Your task to perform on an android device: Go to privacy settings Image 0: 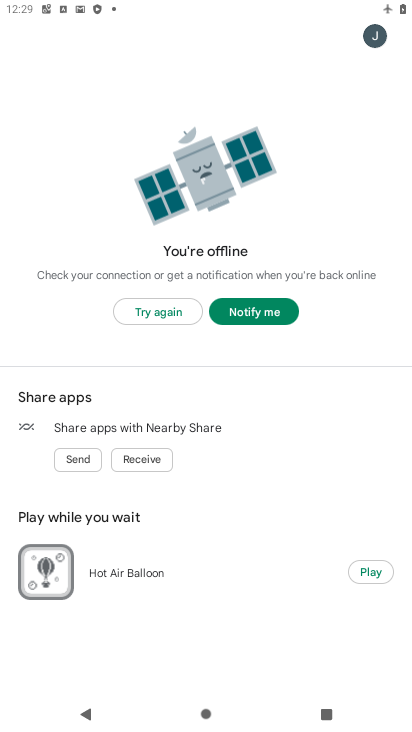
Step 0: press home button
Your task to perform on an android device: Go to privacy settings Image 1: 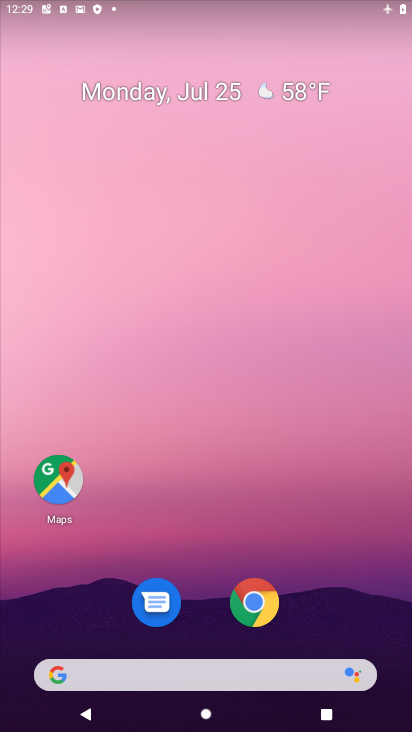
Step 1: drag from (198, 622) to (212, 104)
Your task to perform on an android device: Go to privacy settings Image 2: 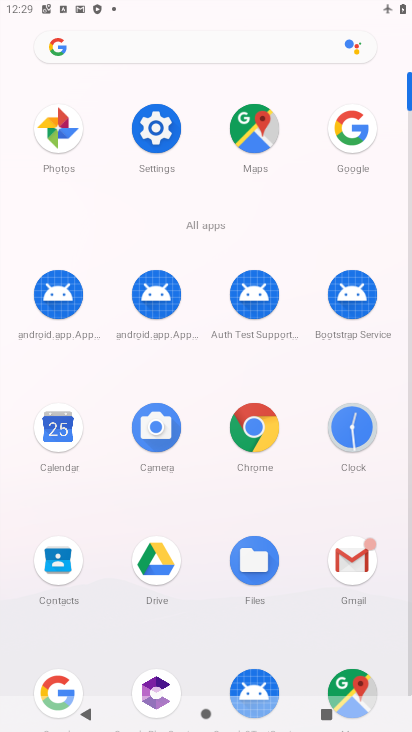
Step 2: click (156, 146)
Your task to perform on an android device: Go to privacy settings Image 3: 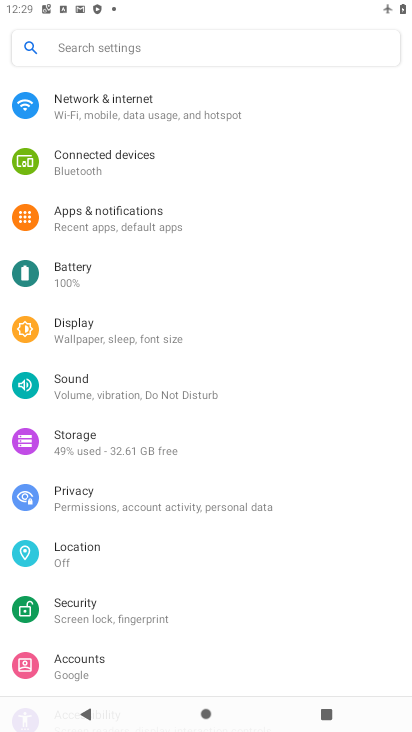
Step 3: click (126, 503)
Your task to perform on an android device: Go to privacy settings Image 4: 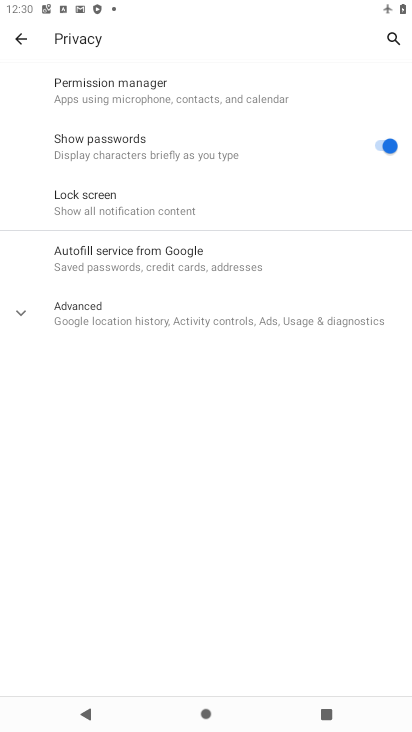
Step 4: task complete